Your task to perform on an android device: Turn off the flashlight Image 0: 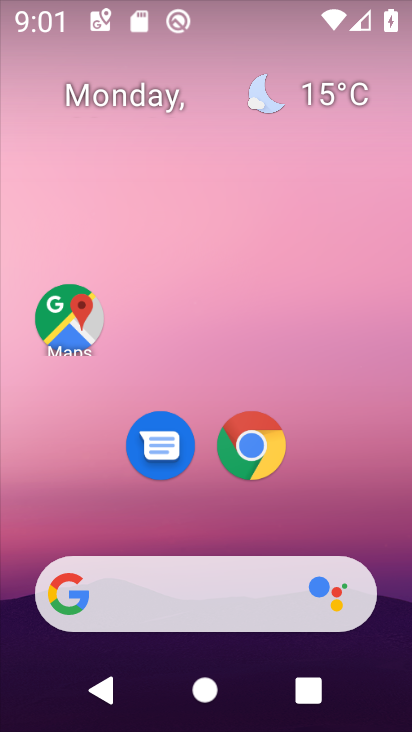
Step 0: drag from (202, 524) to (254, 70)
Your task to perform on an android device: Turn off the flashlight Image 1: 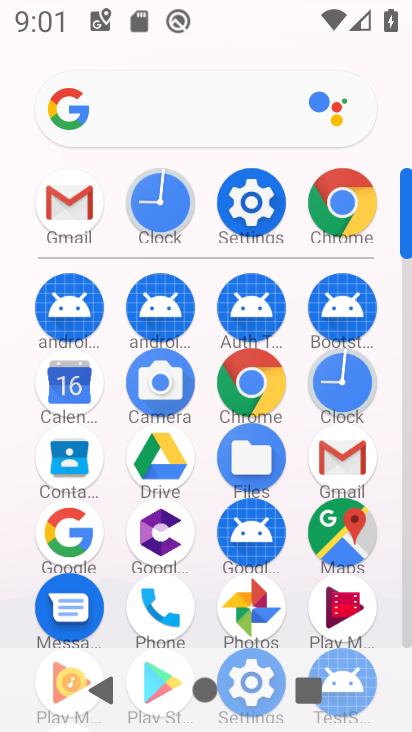
Step 1: click (247, 199)
Your task to perform on an android device: Turn off the flashlight Image 2: 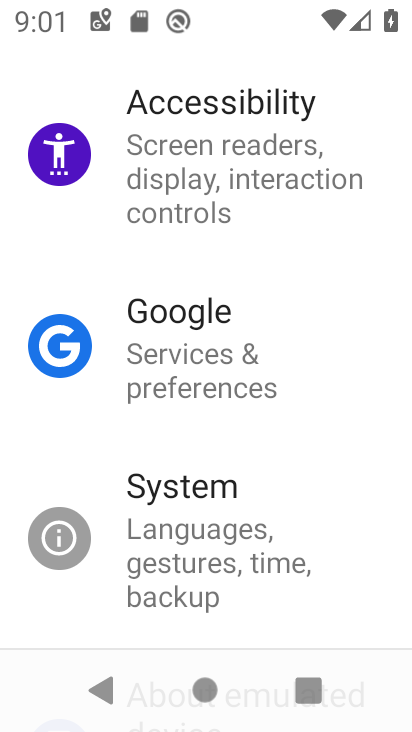
Step 2: drag from (202, 117) to (220, 649)
Your task to perform on an android device: Turn off the flashlight Image 3: 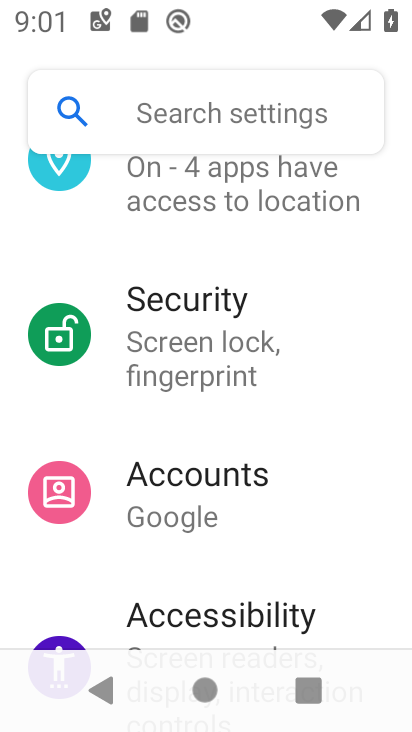
Step 3: click (179, 110)
Your task to perform on an android device: Turn off the flashlight Image 4: 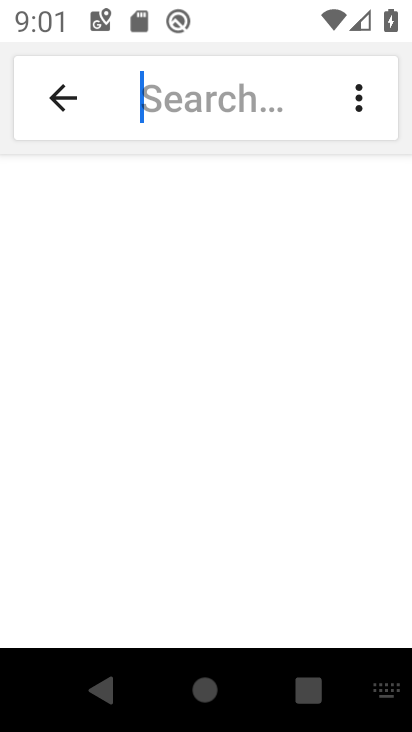
Step 4: type "flashlight"
Your task to perform on an android device: Turn off the flashlight Image 5: 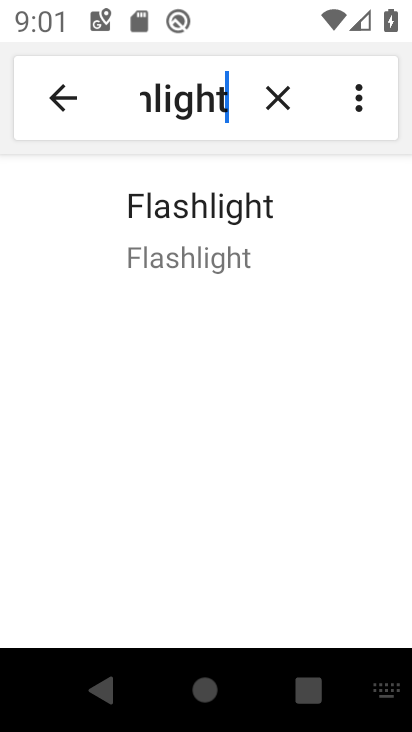
Step 5: click (218, 236)
Your task to perform on an android device: Turn off the flashlight Image 6: 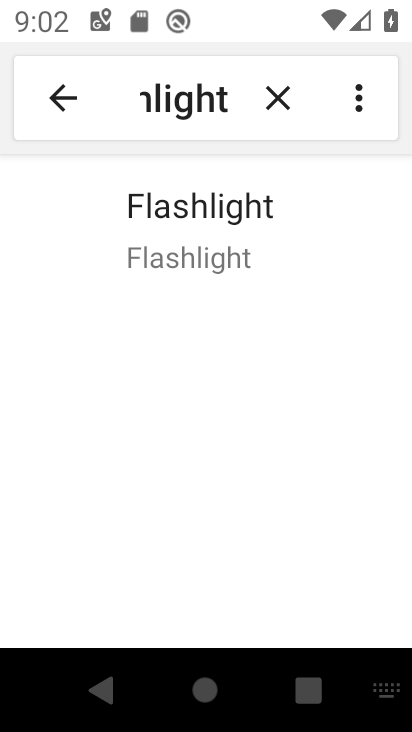
Step 6: click (204, 232)
Your task to perform on an android device: Turn off the flashlight Image 7: 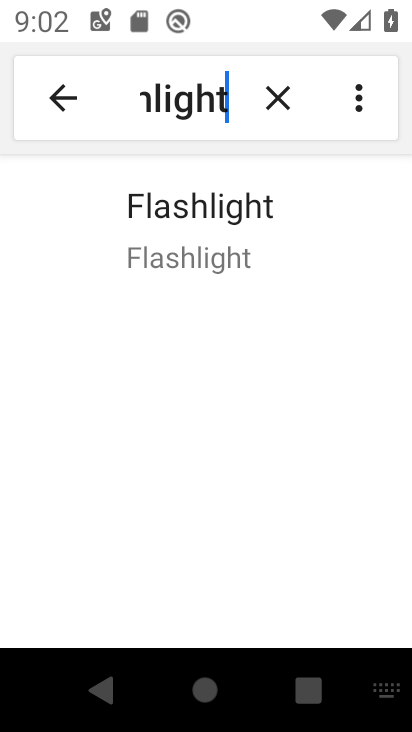
Step 7: task complete